Your task to perform on an android device: open chrome and create a bookmark for the current page Image 0: 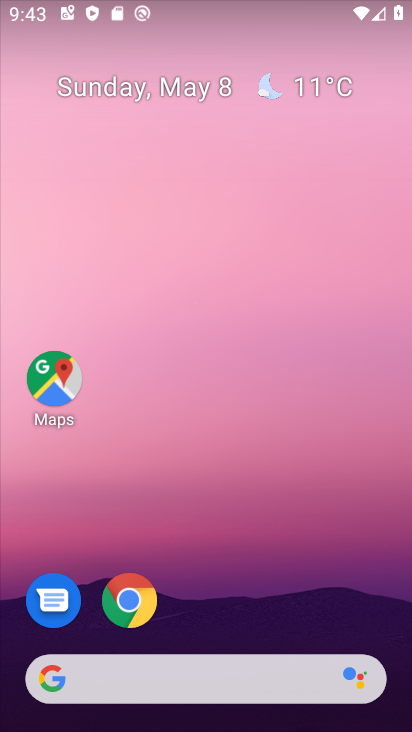
Step 0: drag from (232, 538) to (195, 35)
Your task to perform on an android device: open chrome and create a bookmark for the current page Image 1: 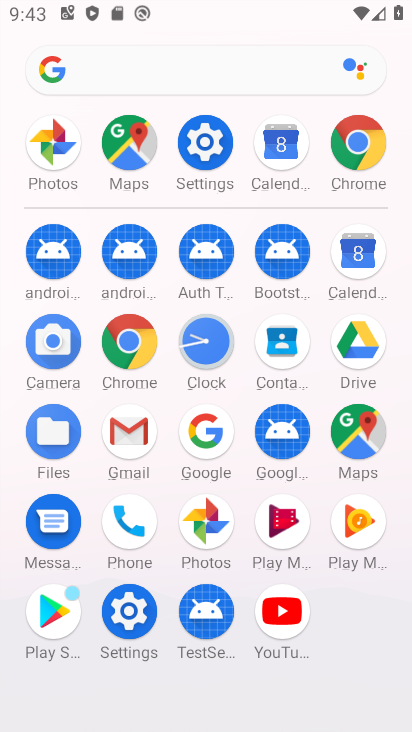
Step 1: drag from (5, 519) to (16, 174)
Your task to perform on an android device: open chrome and create a bookmark for the current page Image 2: 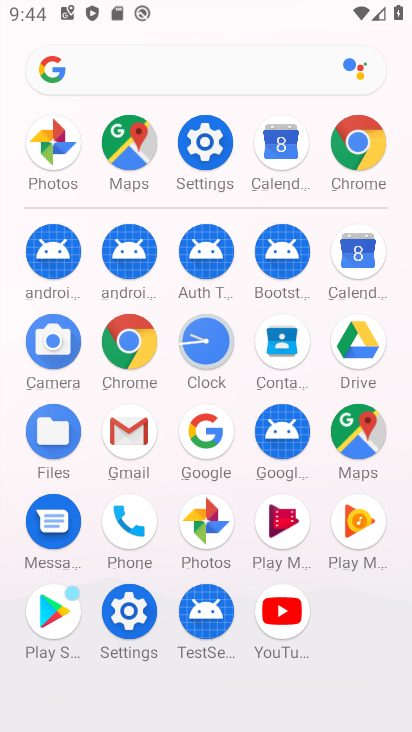
Step 2: click (125, 340)
Your task to perform on an android device: open chrome and create a bookmark for the current page Image 3: 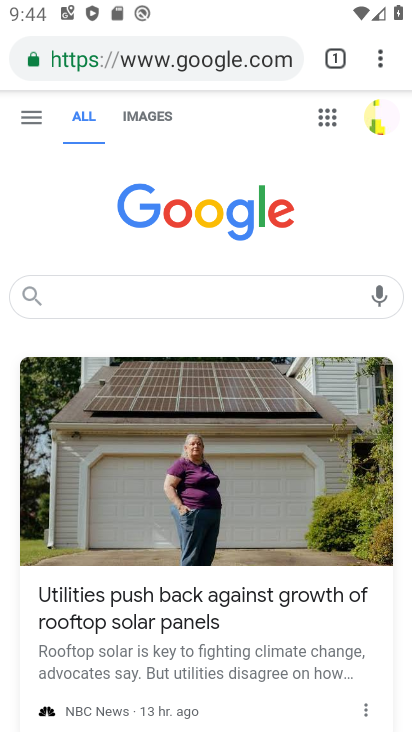
Step 3: drag from (381, 61) to (192, 624)
Your task to perform on an android device: open chrome and create a bookmark for the current page Image 4: 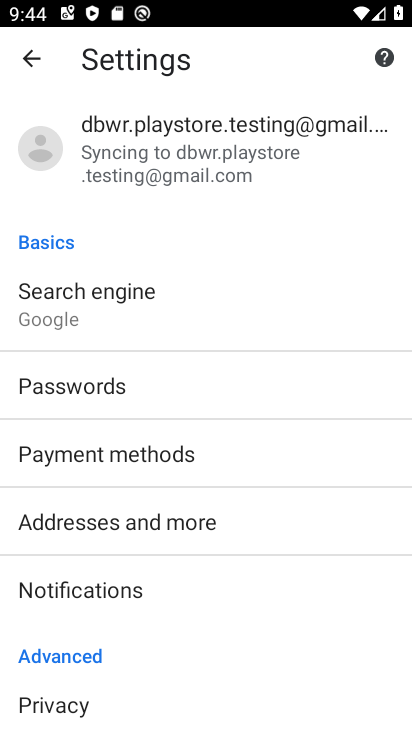
Step 4: click (42, 58)
Your task to perform on an android device: open chrome and create a bookmark for the current page Image 5: 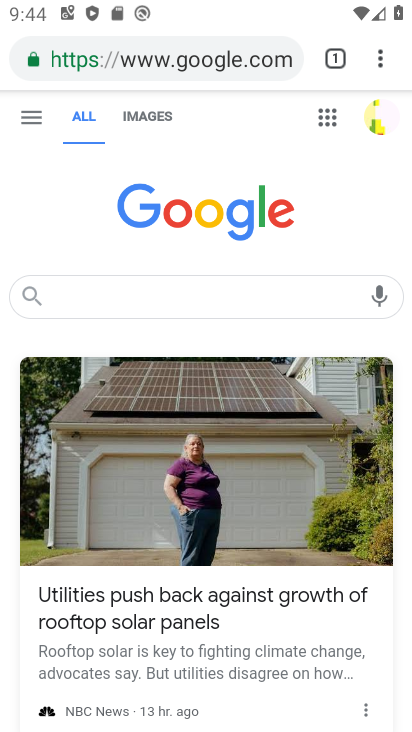
Step 5: drag from (376, 58) to (276, 232)
Your task to perform on an android device: open chrome and create a bookmark for the current page Image 6: 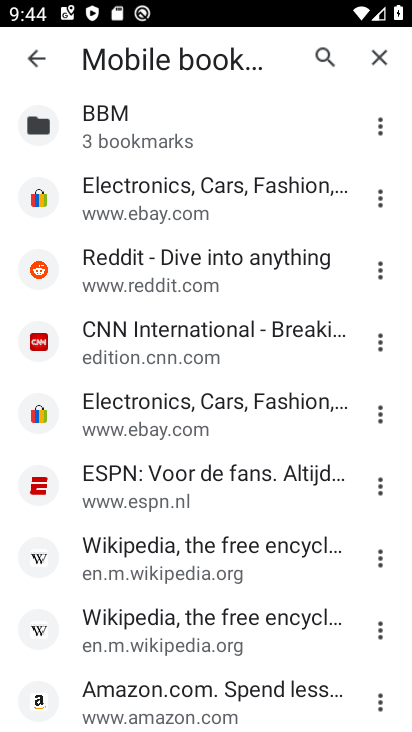
Step 6: drag from (283, 543) to (299, 173)
Your task to perform on an android device: open chrome and create a bookmark for the current page Image 7: 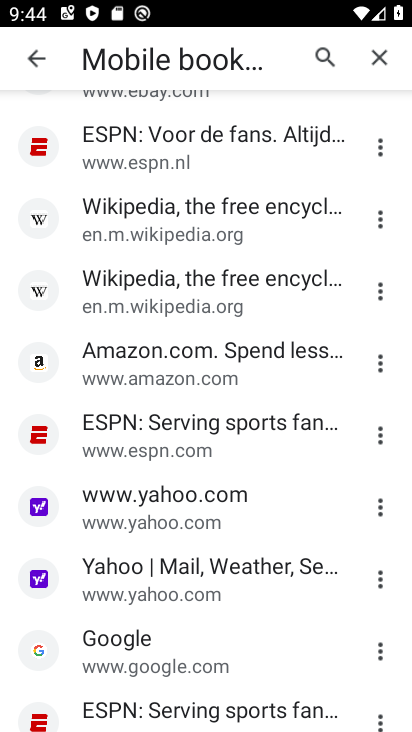
Step 7: click (380, 645)
Your task to perform on an android device: open chrome and create a bookmark for the current page Image 8: 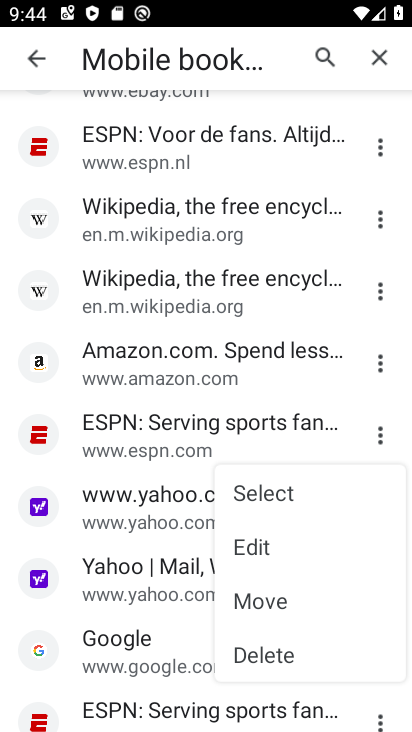
Step 8: click (343, 650)
Your task to perform on an android device: open chrome and create a bookmark for the current page Image 9: 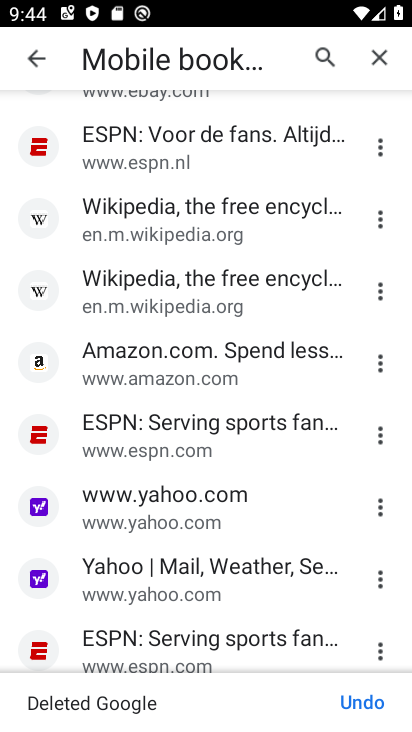
Step 9: drag from (263, 665) to (261, 181)
Your task to perform on an android device: open chrome and create a bookmark for the current page Image 10: 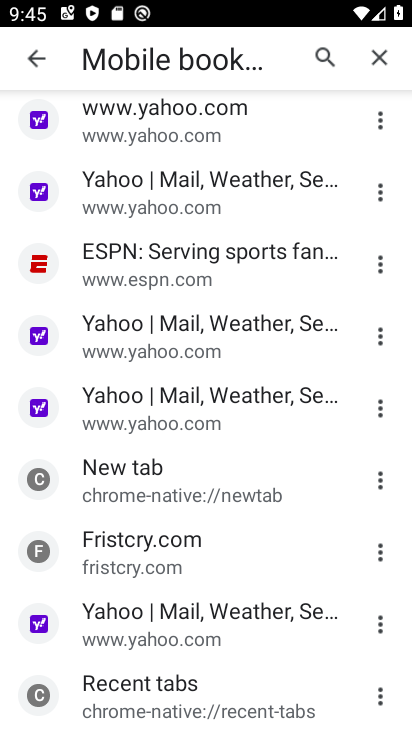
Step 10: drag from (254, 678) to (227, 260)
Your task to perform on an android device: open chrome and create a bookmark for the current page Image 11: 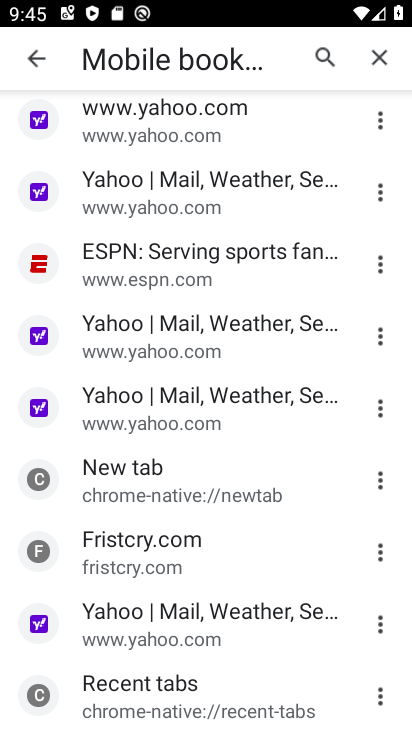
Step 11: click (38, 55)
Your task to perform on an android device: open chrome and create a bookmark for the current page Image 12: 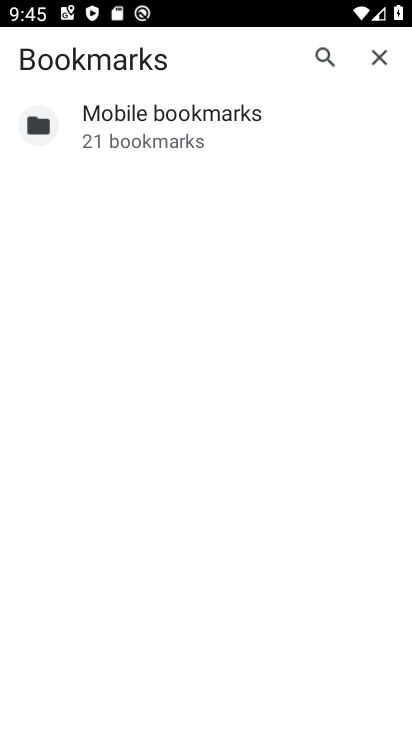
Step 12: task complete